Your task to perform on an android device: toggle show notifications on the lock screen Image 0: 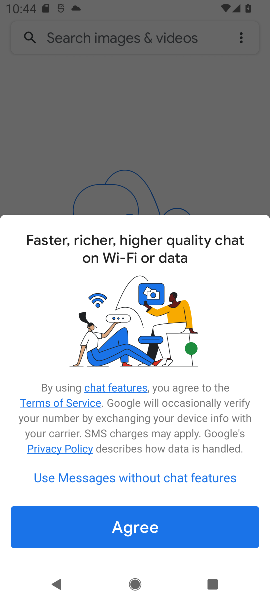
Step 0: press home button
Your task to perform on an android device: toggle show notifications on the lock screen Image 1: 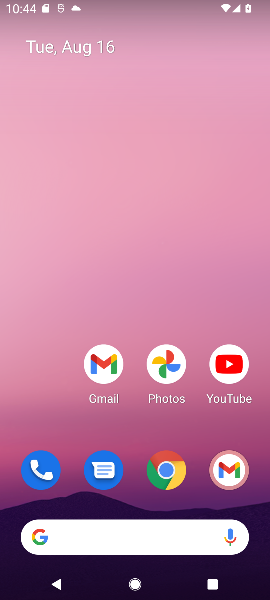
Step 1: drag from (63, 388) to (135, 27)
Your task to perform on an android device: toggle show notifications on the lock screen Image 2: 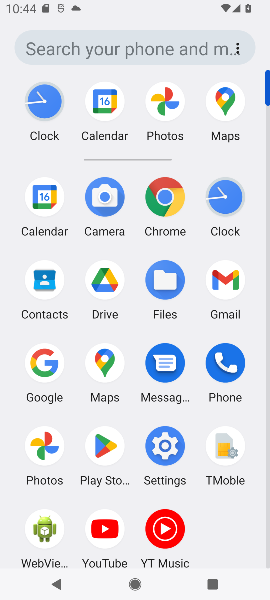
Step 2: click (164, 444)
Your task to perform on an android device: toggle show notifications on the lock screen Image 3: 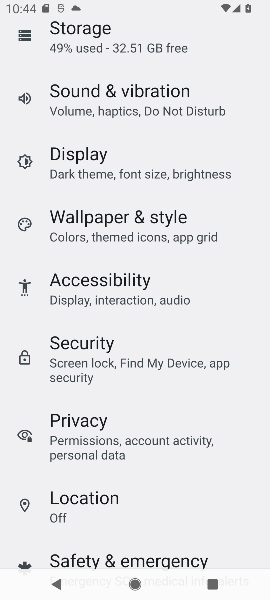
Step 3: drag from (167, 138) to (155, 450)
Your task to perform on an android device: toggle show notifications on the lock screen Image 4: 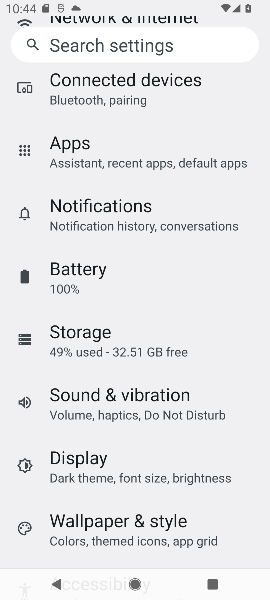
Step 4: click (127, 219)
Your task to perform on an android device: toggle show notifications on the lock screen Image 5: 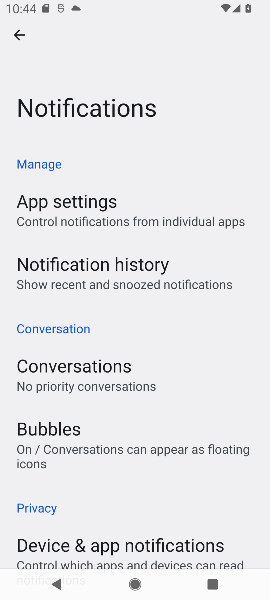
Step 5: drag from (139, 501) to (157, 169)
Your task to perform on an android device: toggle show notifications on the lock screen Image 6: 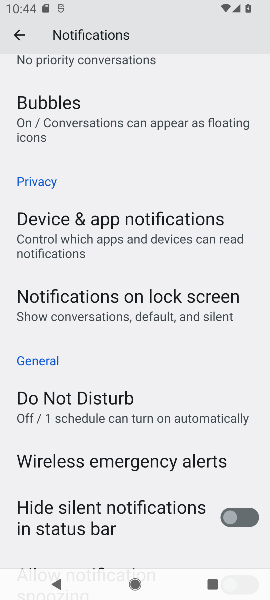
Step 6: drag from (145, 432) to (152, 161)
Your task to perform on an android device: toggle show notifications on the lock screen Image 7: 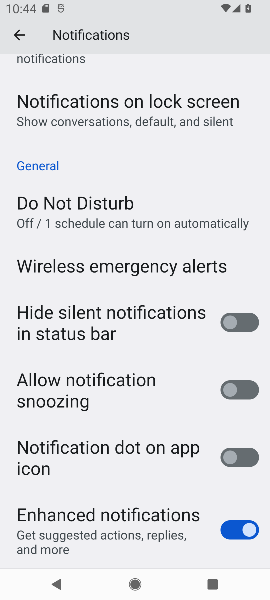
Step 7: click (131, 112)
Your task to perform on an android device: toggle show notifications on the lock screen Image 8: 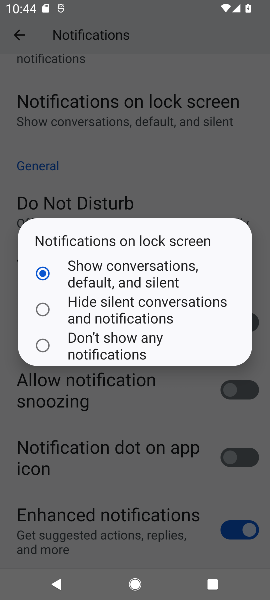
Step 8: click (41, 346)
Your task to perform on an android device: toggle show notifications on the lock screen Image 9: 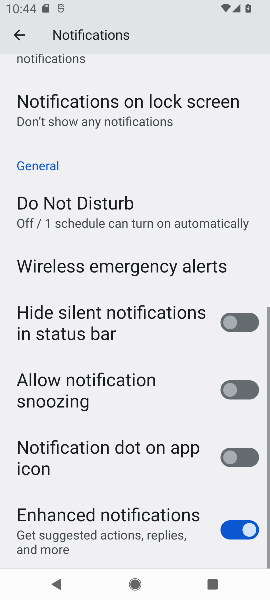
Step 9: task complete